Your task to perform on an android device: allow notifications from all sites in the chrome app Image 0: 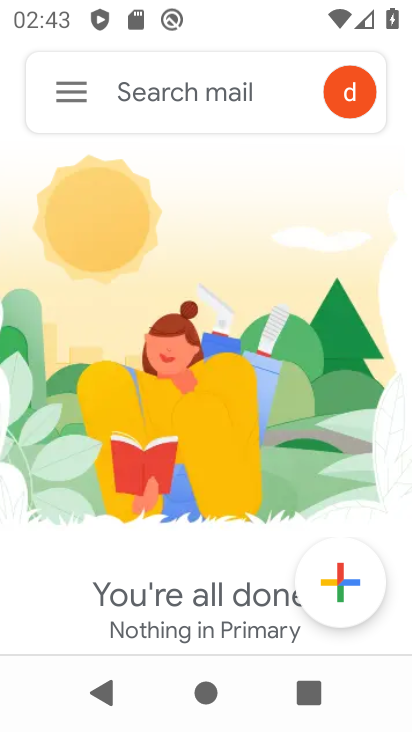
Step 0: press home button
Your task to perform on an android device: allow notifications from all sites in the chrome app Image 1: 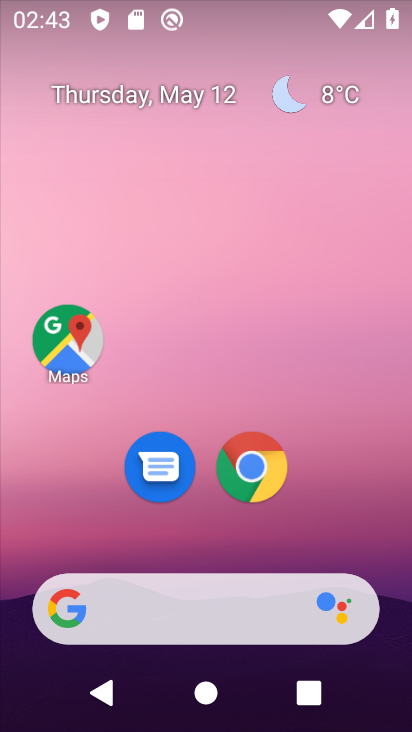
Step 1: click (257, 455)
Your task to perform on an android device: allow notifications from all sites in the chrome app Image 2: 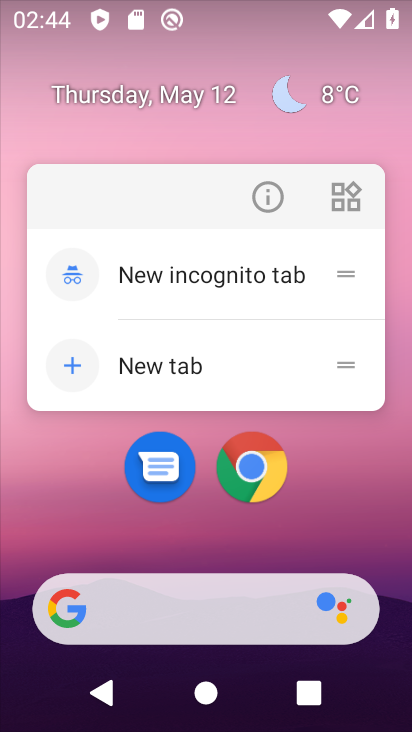
Step 2: click (262, 195)
Your task to perform on an android device: allow notifications from all sites in the chrome app Image 3: 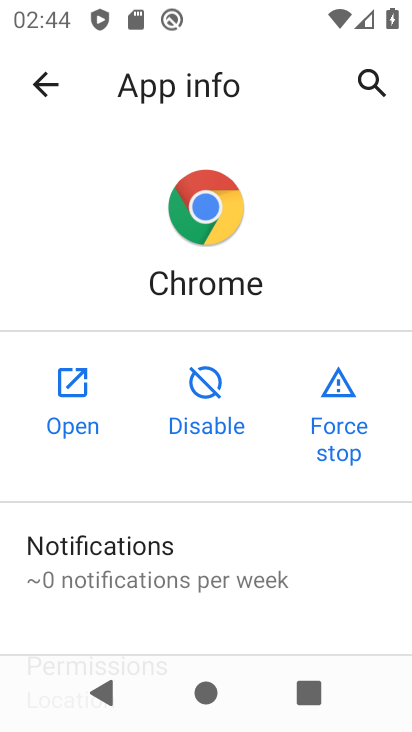
Step 3: click (98, 527)
Your task to perform on an android device: allow notifications from all sites in the chrome app Image 4: 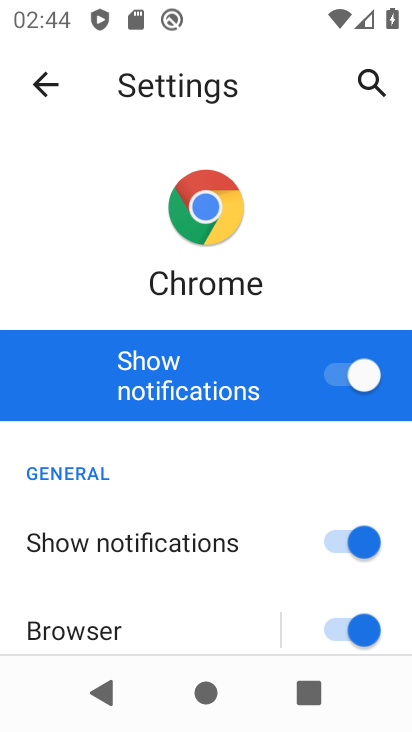
Step 4: task complete